Your task to perform on an android device: Go to Yahoo.com Image 0: 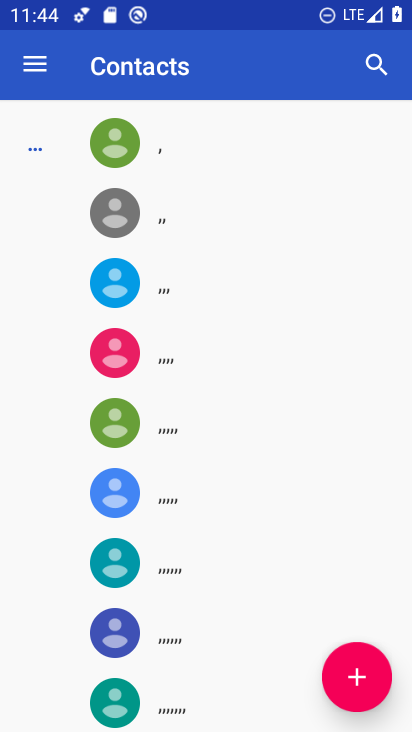
Step 0: drag from (194, 642) to (245, 407)
Your task to perform on an android device: Go to Yahoo.com Image 1: 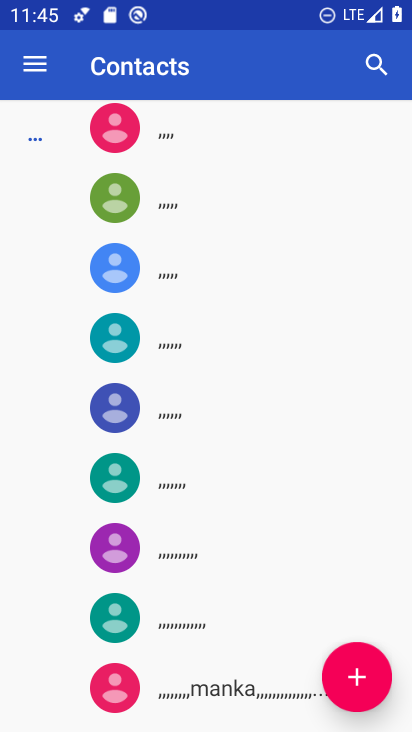
Step 1: press home button
Your task to perform on an android device: Go to Yahoo.com Image 2: 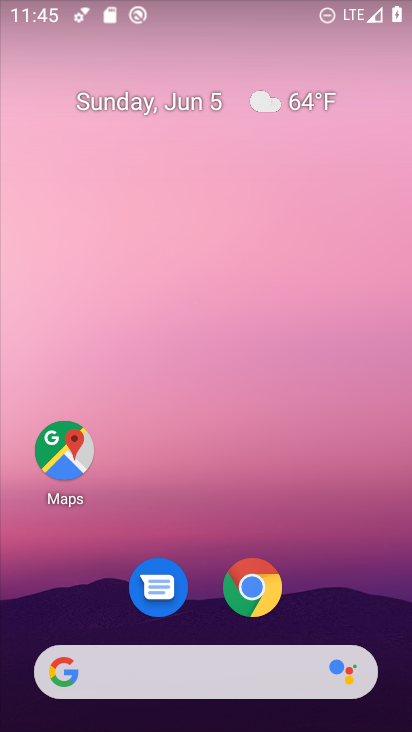
Step 2: click (252, 599)
Your task to perform on an android device: Go to Yahoo.com Image 3: 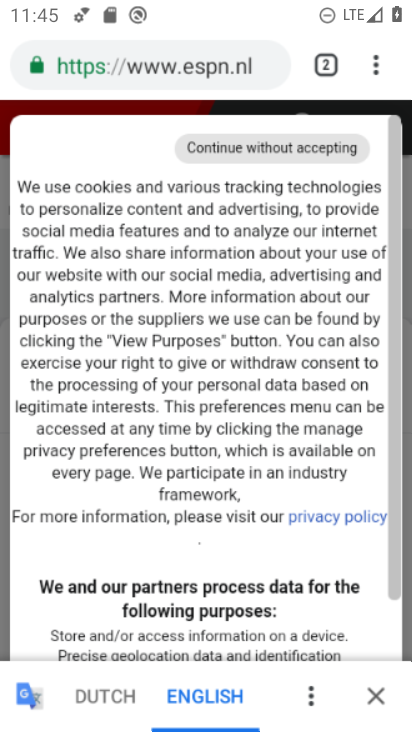
Step 3: click (321, 52)
Your task to perform on an android device: Go to Yahoo.com Image 4: 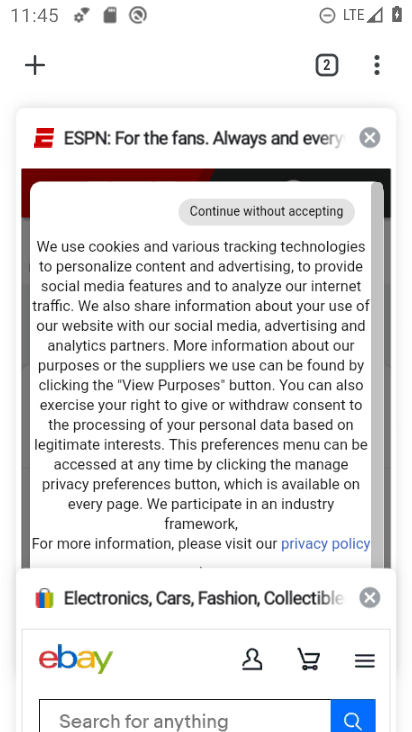
Step 4: click (23, 66)
Your task to perform on an android device: Go to Yahoo.com Image 5: 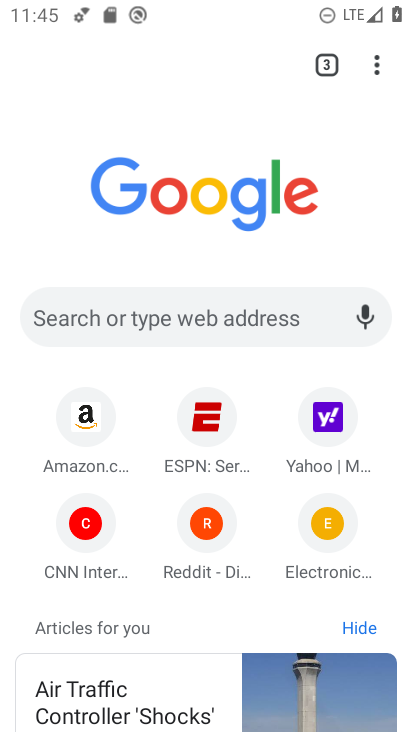
Step 5: click (343, 447)
Your task to perform on an android device: Go to Yahoo.com Image 6: 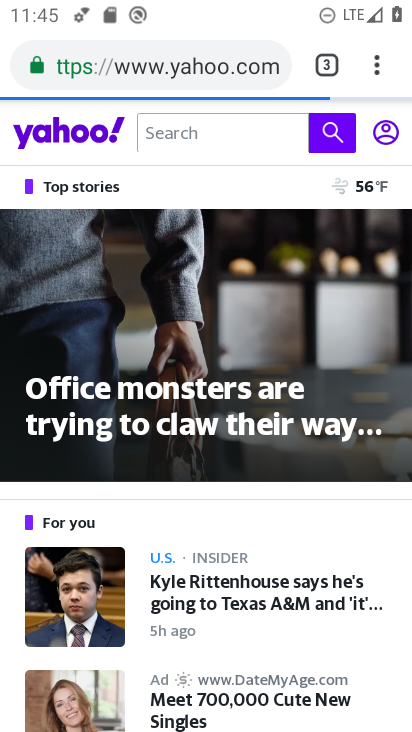
Step 6: task complete